Your task to perform on an android device: open app "Adobe Acrobat Reader" (install if not already installed) Image 0: 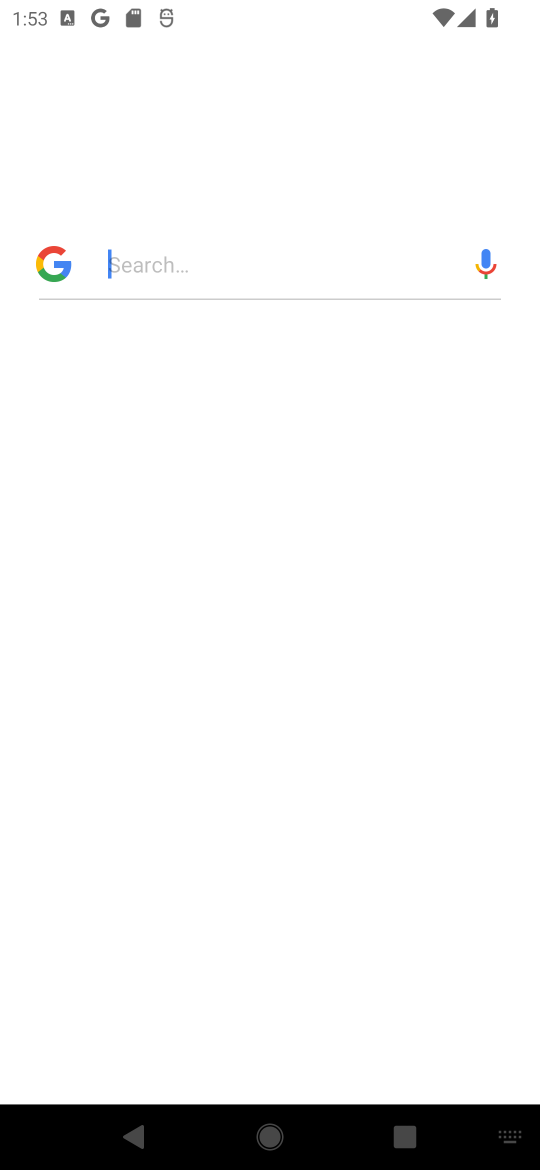
Step 0: press back button
Your task to perform on an android device: open app "Adobe Acrobat Reader" (install if not already installed) Image 1: 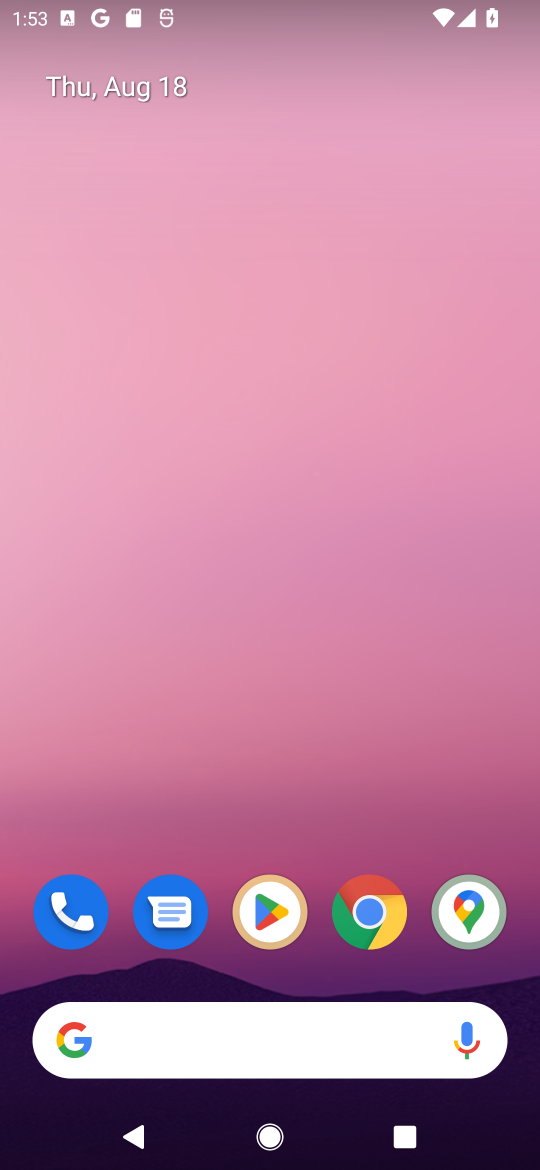
Step 1: press home button
Your task to perform on an android device: open app "Adobe Acrobat Reader" (install if not already installed) Image 2: 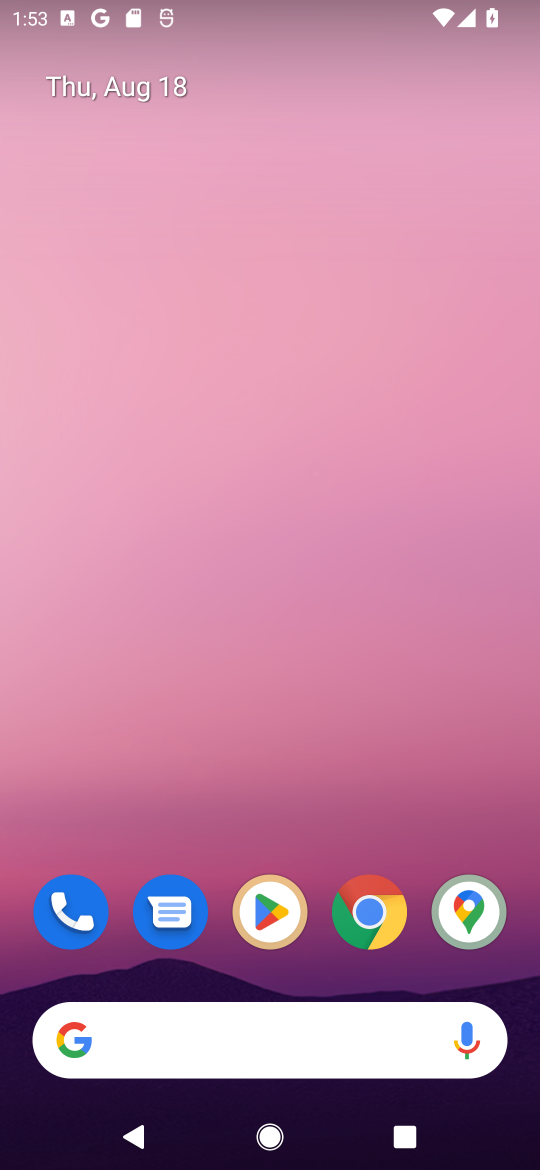
Step 2: click (263, 921)
Your task to perform on an android device: open app "Adobe Acrobat Reader" (install if not already installed) Image 3: 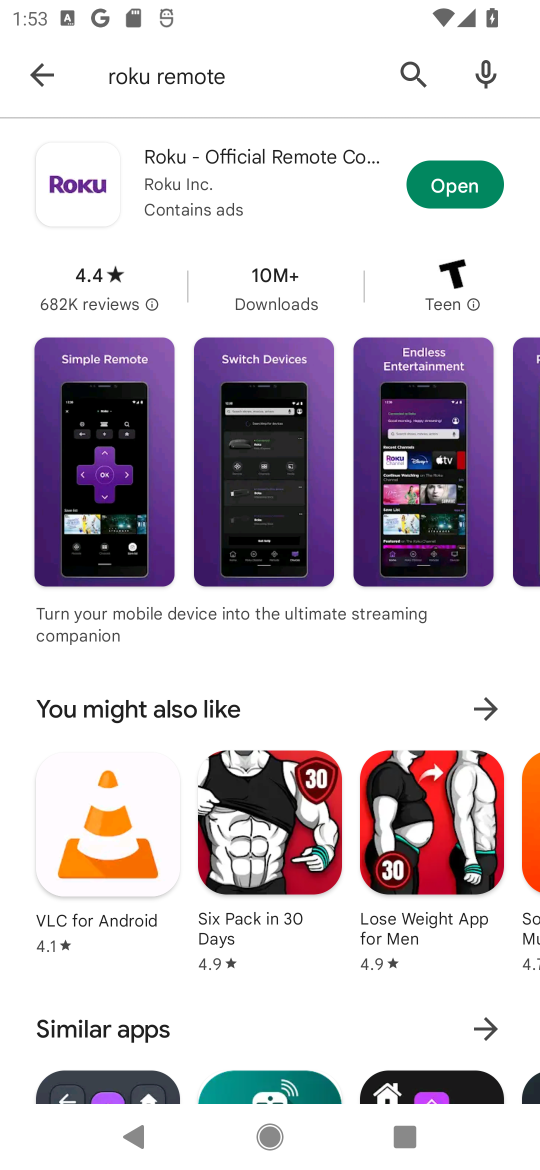
Step 3: click (406, 80)
Your task to perform on an android device: open app "Adobe Acrobat Reader" (install if not already installed) Image 4: 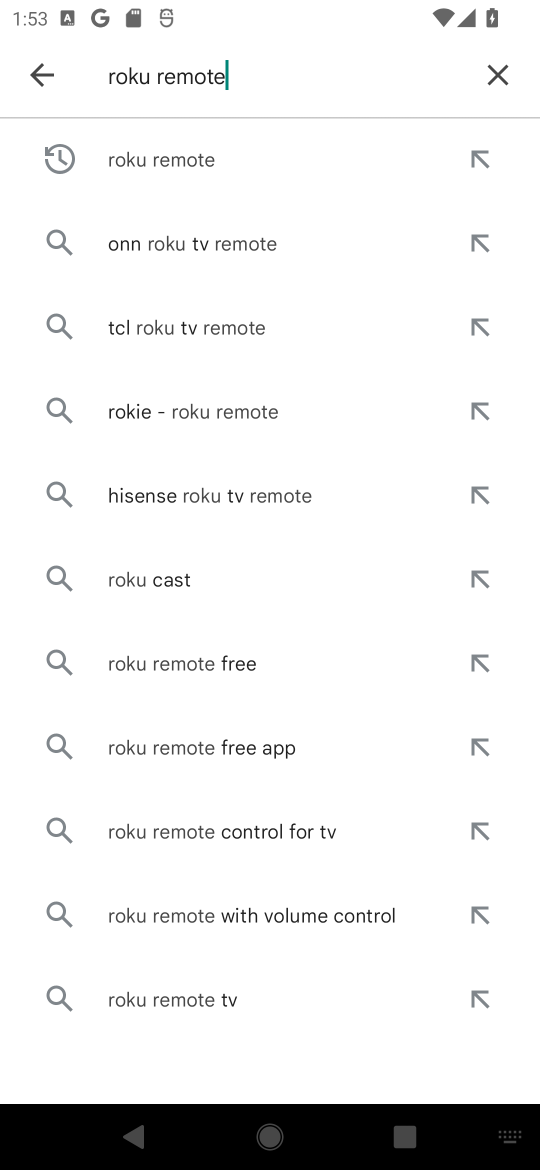
Step 4: click (513, 82)
Your task to perform on an android device: open app "Adobe Acrobat Reader" (install if not already installed) Image 5: 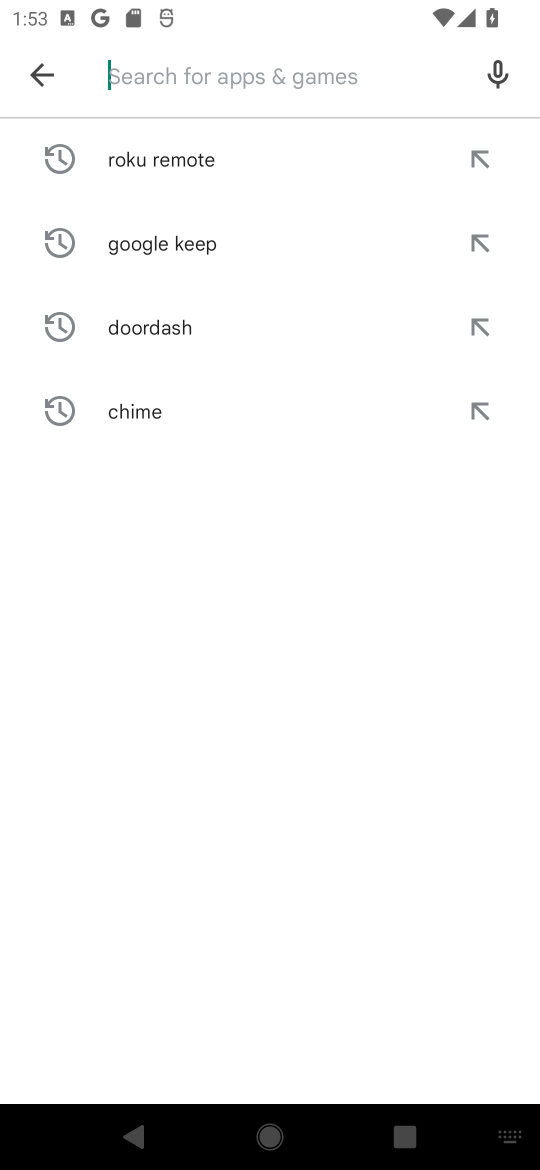
Step 5: click (215, 61)
Your task to perform on an android device: open app "Adobe Acrobat Reader" (install if not already installed) Image 6: 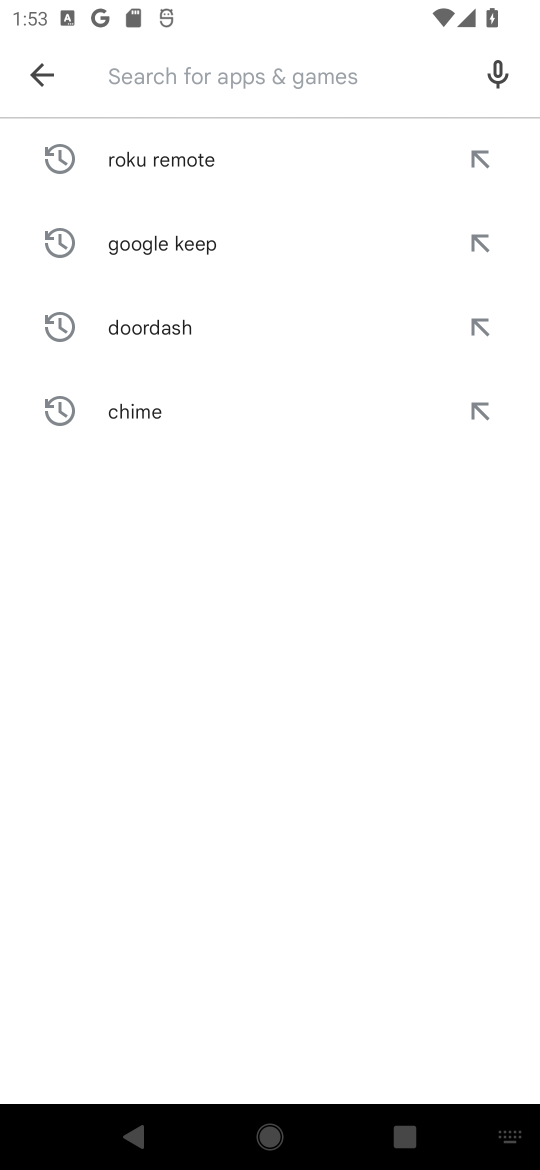
Step 6: type "adobe"
Your task to perform on an android device: open app "Adobe Acrobat Reader" (install if not already installed) Image 7: 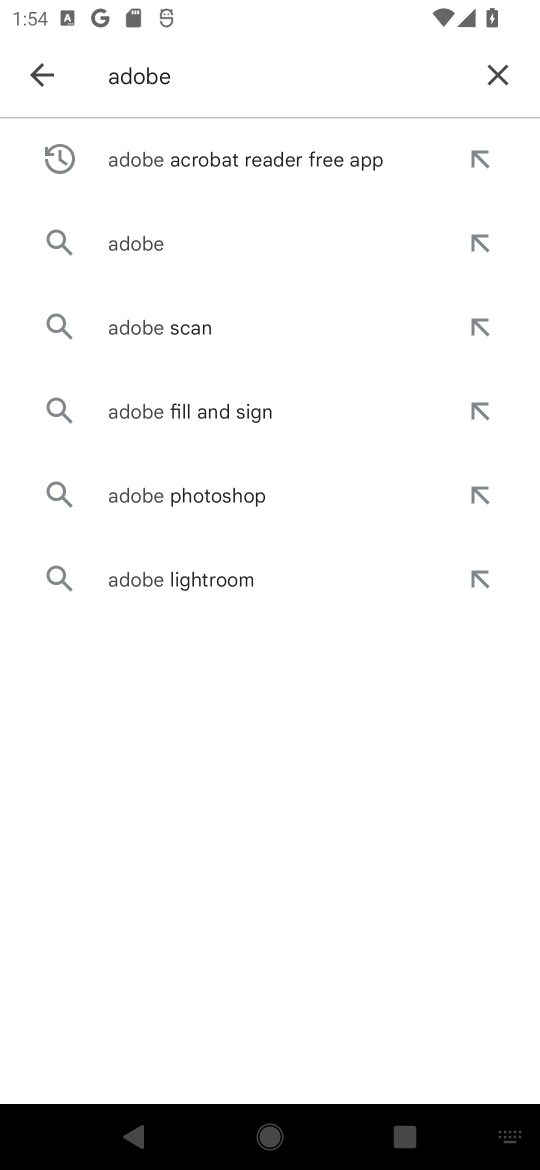
Step 7: click (189, 158)
Your task to perform on an android device: open app "Adobe Acrobat Reader" (install if not already installed) Image 8: 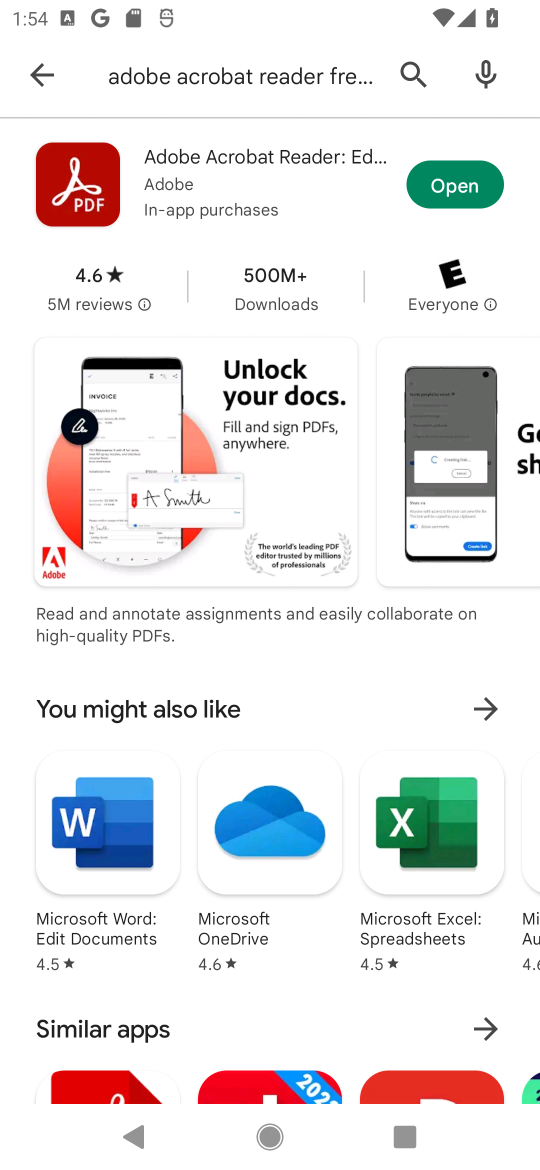
Step 8: task complete